Your task to perform on an android device: Open notification settings Image 0: 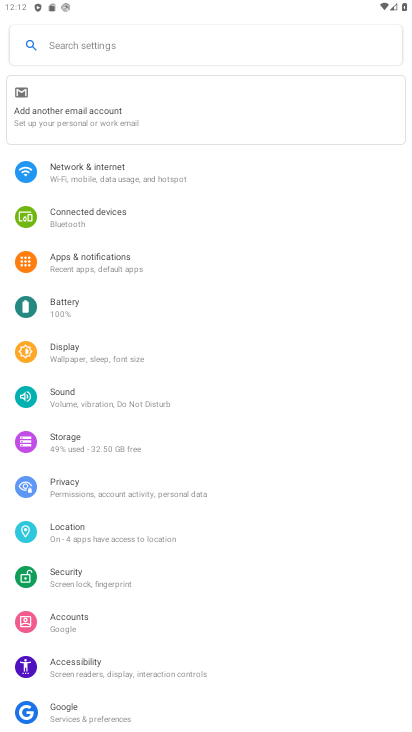
Step 0: press home button
Your task to perform on an android device: Open notification settings Image 1: 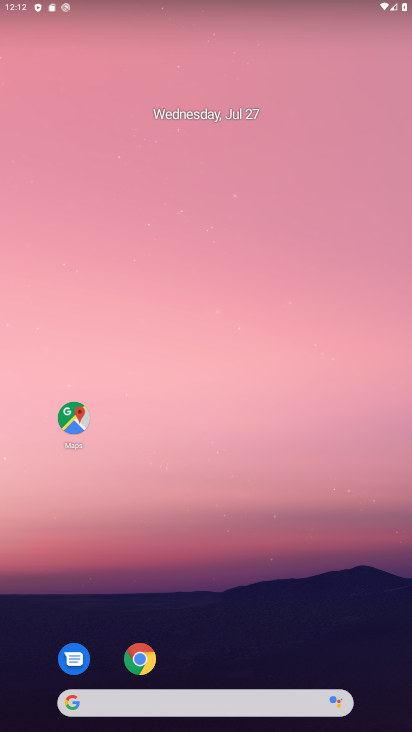
Step 1: drag from (270, 552) to (48, 7)
Your task to perform on an android device: Open notification settings Image 2: 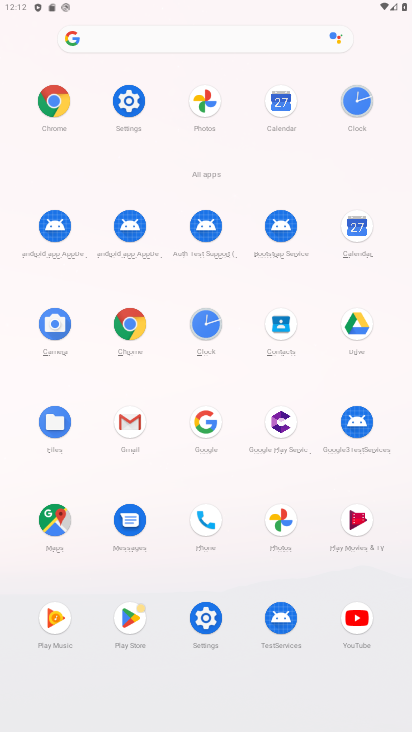
Step 2: click (143, 122)
Your task to perform on an android device: Open notification settings Image 3: 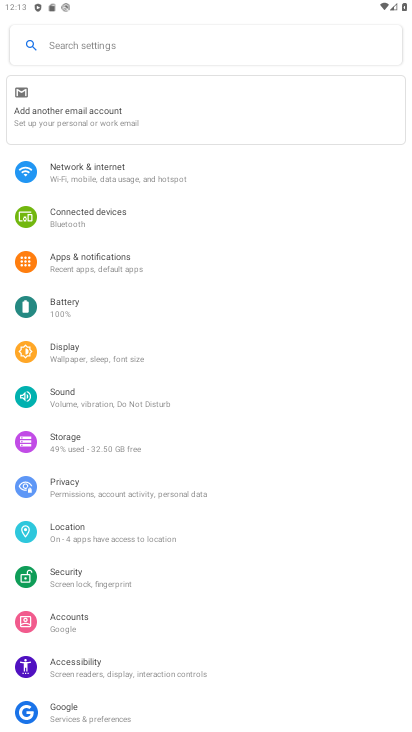
Step 3: click (114, 263)
Your task to perform on an android device: Open notification settings Image 4: 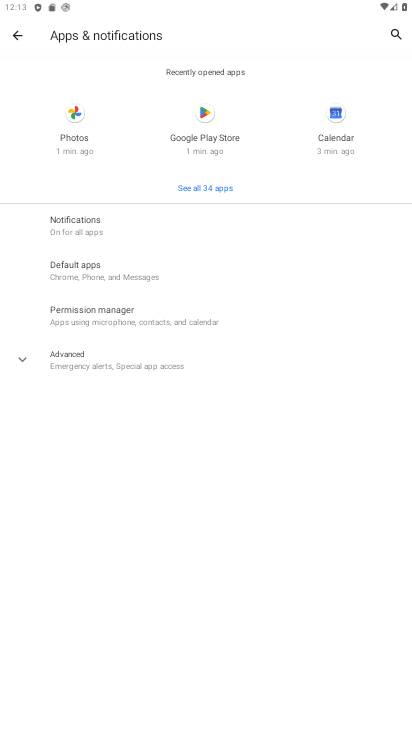
Step 4: click (72, 223)
Your task to perform on an android device: Open notification settings Image 5: 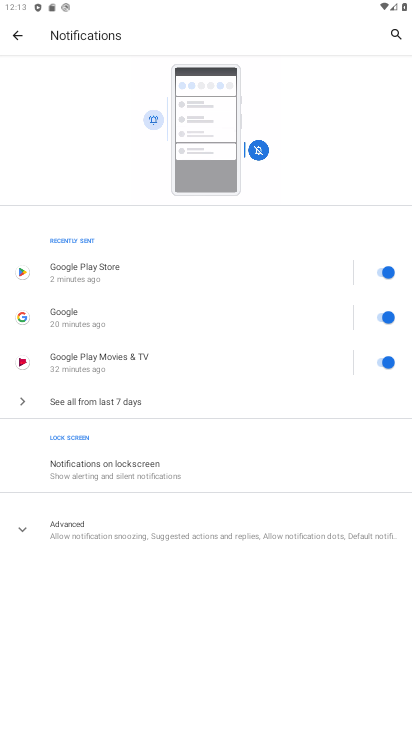
Step 5: task complete